Your task to perform on an android device: Open the stopwatch Image 0: 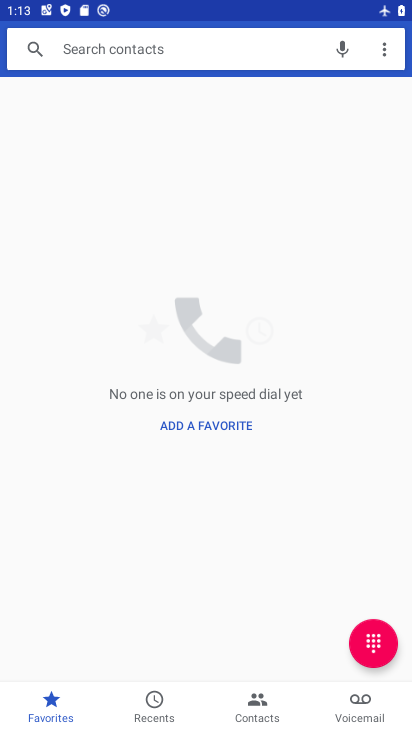
Step 0: press home button
Your task to perform on an android device: Open the stopwatch Image 1: 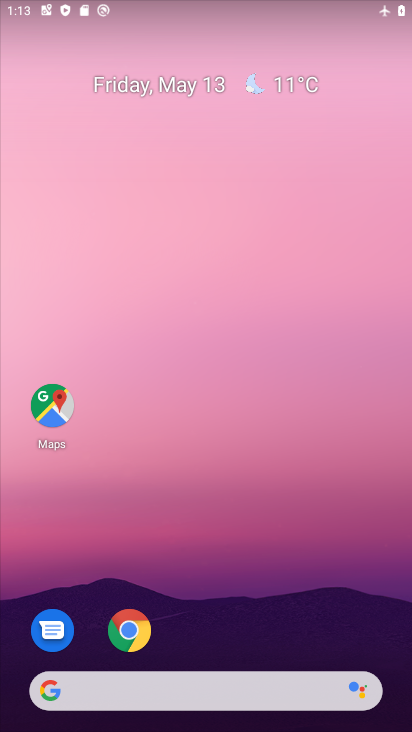
Step 1: drag from (261, 635) to (285, 10)
Your task to perform on an android device: Open the stopwatch Image 2: 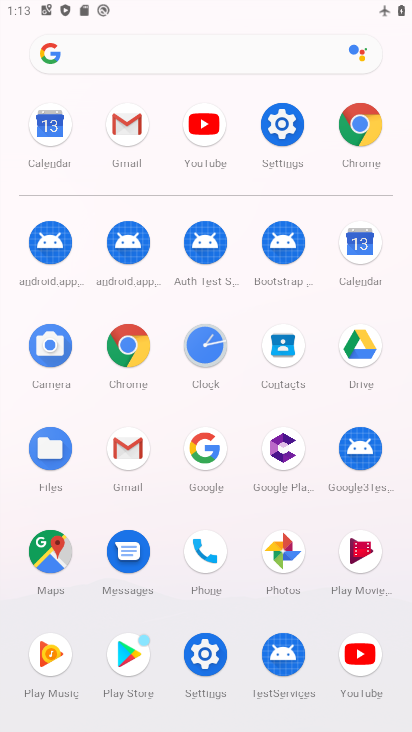
Step 2: click (208, 354)
Your task to perform on an android device: Open the stopwatch Image 3: 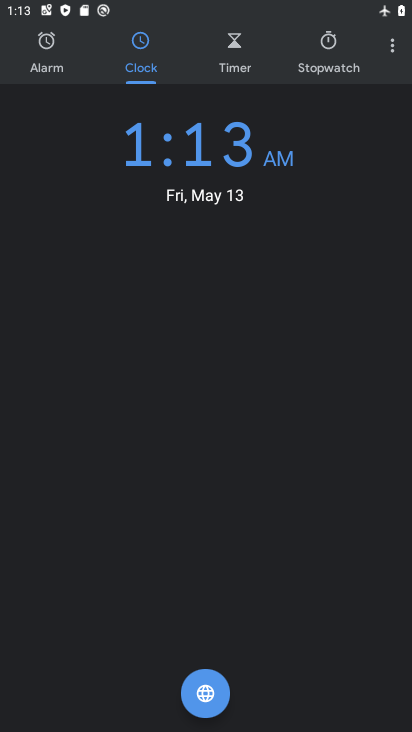
Step 3: click (321, 51)
Your task to perform on an android device: Open the stopwatch Image 4: 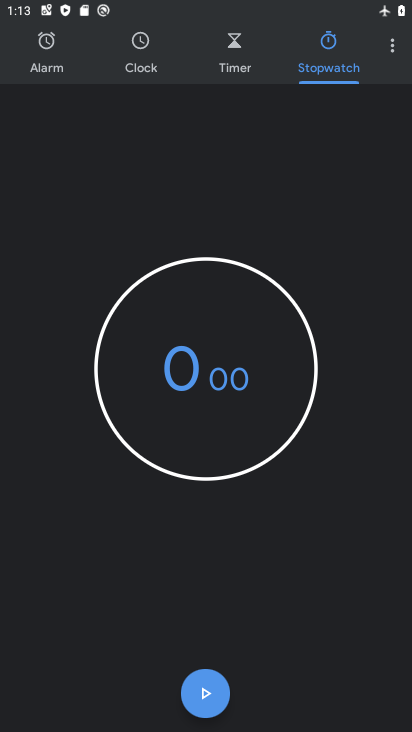
Step 4: task complete